Your task to perform on an android device: check google app version Image 0: 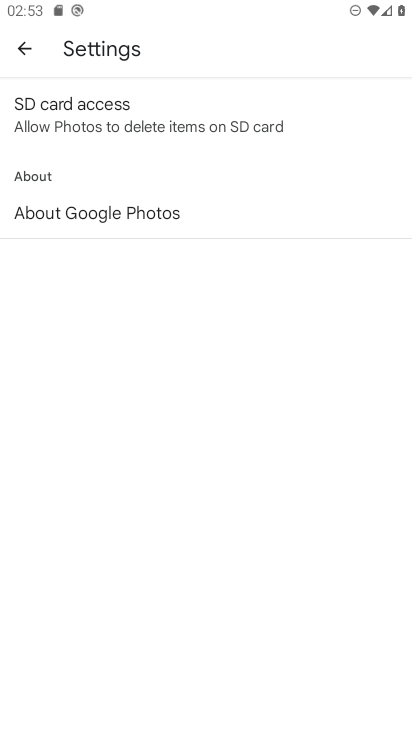
Step 0: press home button
Your task to perform on an android device: check google app version Image 1: 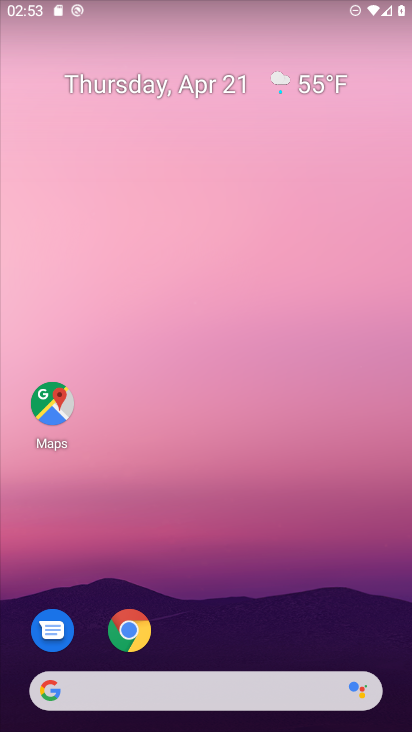
Step 1: click (137, 626)
Your task to perform on an android device: check google app version Image 2: 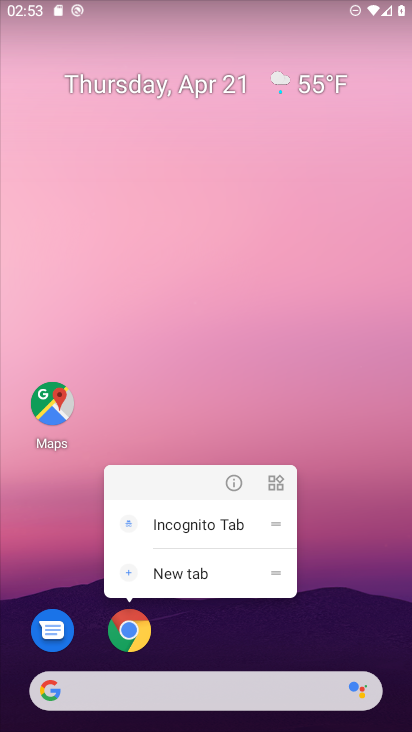
Step 2: click (239, 481)
Your task to perform on an android device: check google app version Image 3: 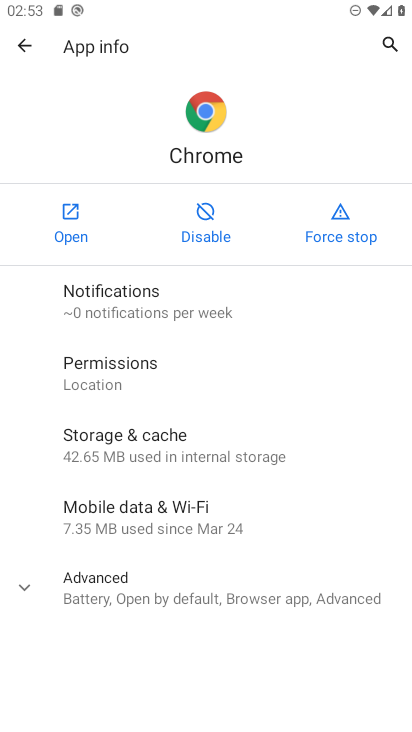
Step 3: click (199, 583)
Your task to perform on an android device: check google app version Image 4: 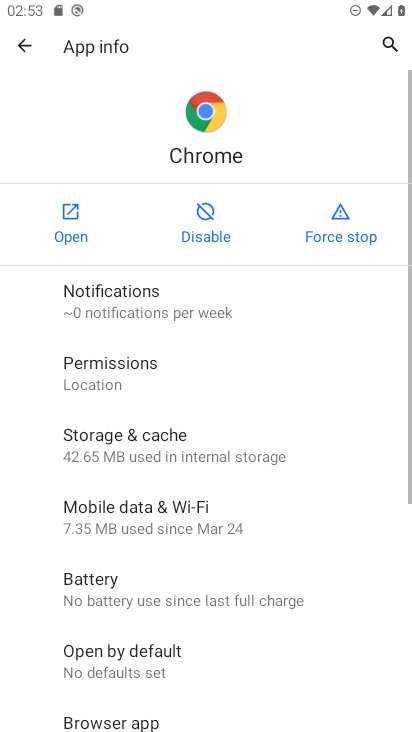
Step 4: click (282, 584)
Your task to perform on an android device: check google app version Image 5: 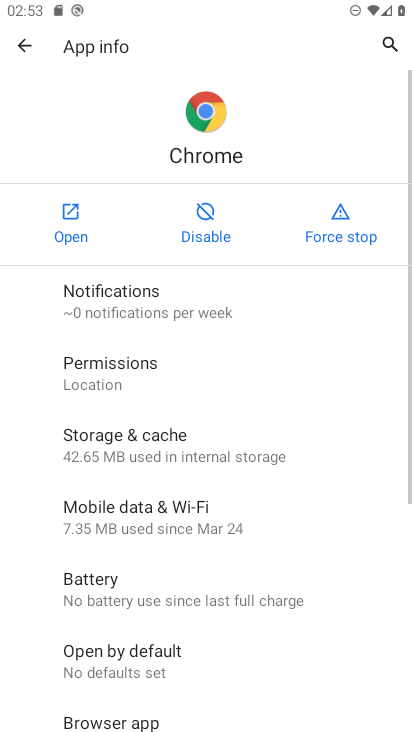
Step 5: drag from (282, 584) to (280, 237)
Your task to perform on an android device: check google app version Image 6: 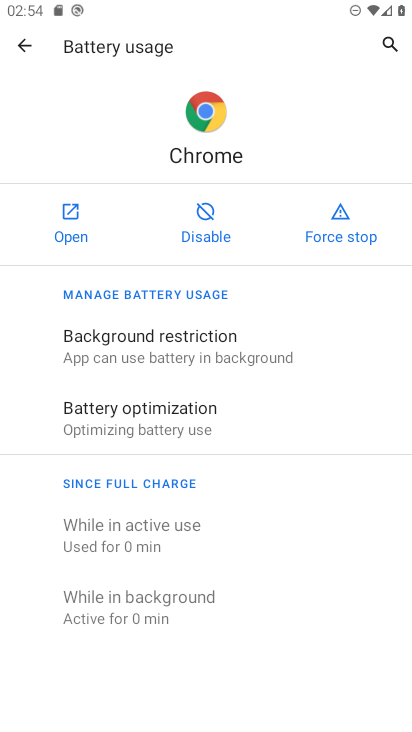
Step 6: click (23, 56)
Your task to perform on an android device: check google app version Image 7: 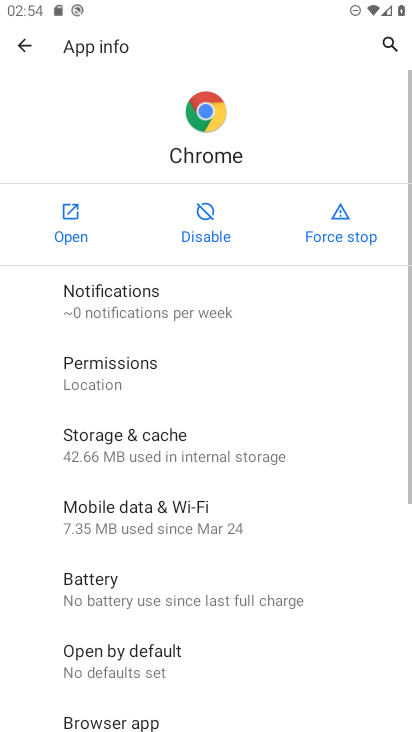
Step 7: task complete